Your task to perform on an android device: turn on airplane mode Image 0: 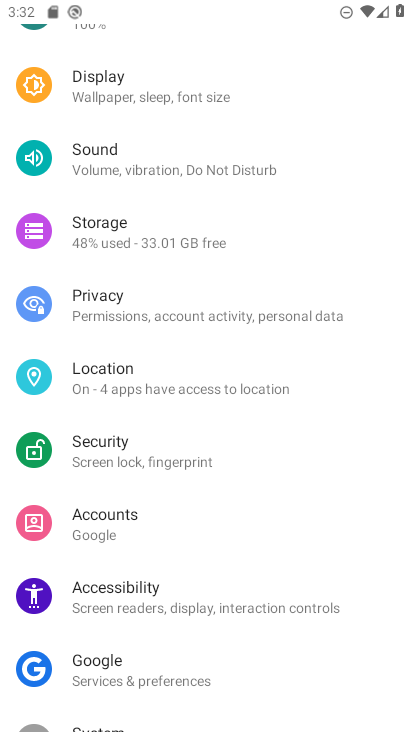
Step 0: drag from (260, 2) to (228, 625)
Your task to perform on an android device: turn on airplane mode Image 1: 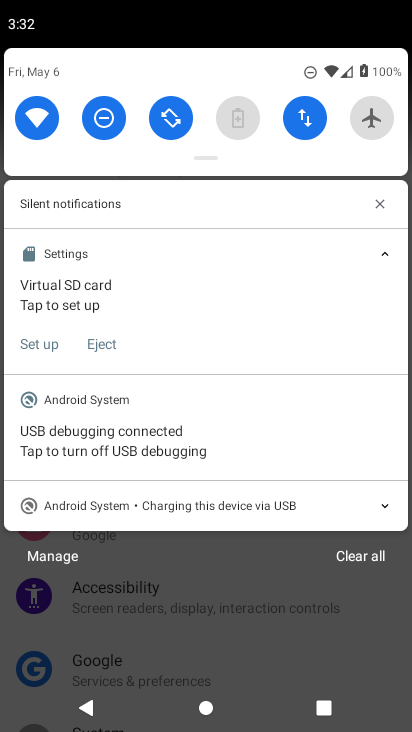
Step 1: click (363, 108)
Your task to perform on an android device: turn on airplane mode Image 2: 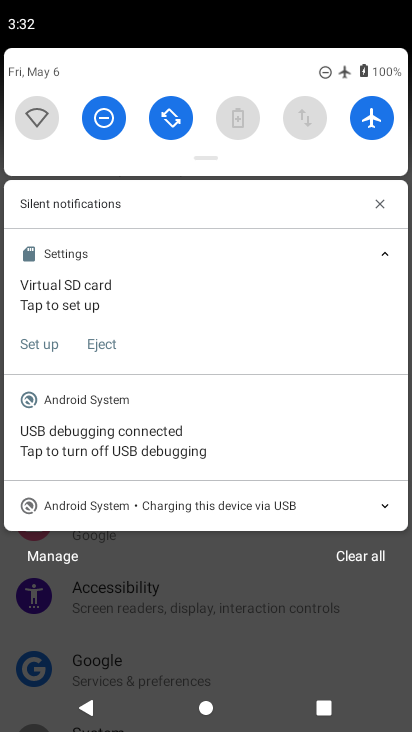
Step 2: task complete